Your task to perform on an android device: Search for pizza restaurants on Maps Image 0: 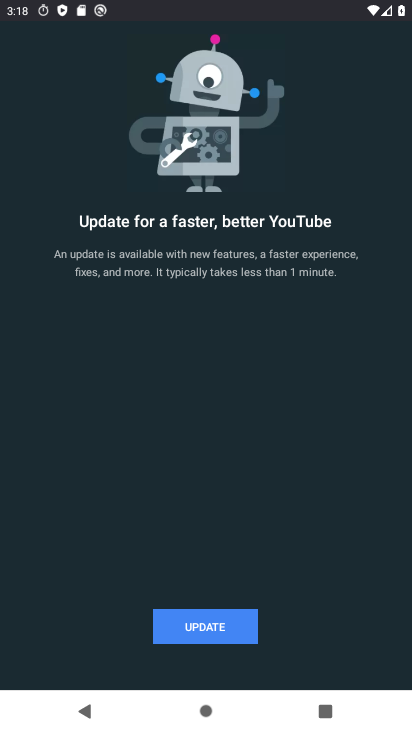
Step 0: press home button
Your task to perform on an android device: Search for pizza restaurants on Maps Image 1: 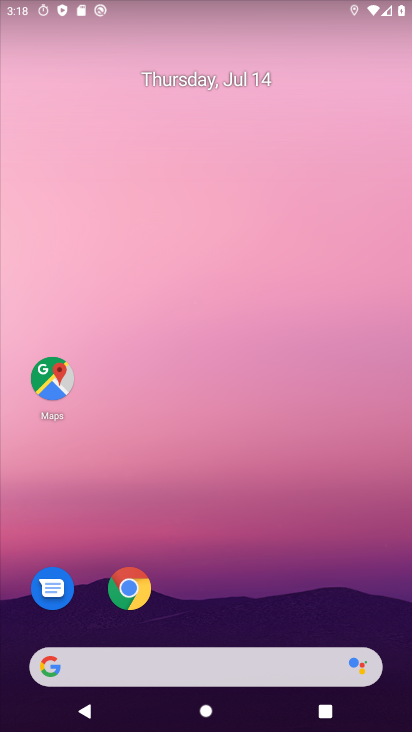
Step 1: click (53, 379)
Your task to perform on an android device: Search for pizza restaurants on Maps Image 2: 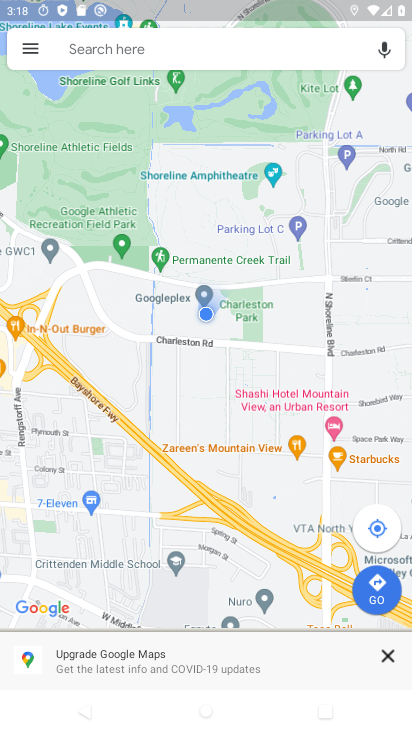
Step 2: click (181, 52)
Your task to perform on an android device: Search for pizza restaurants on Maps Image 3: 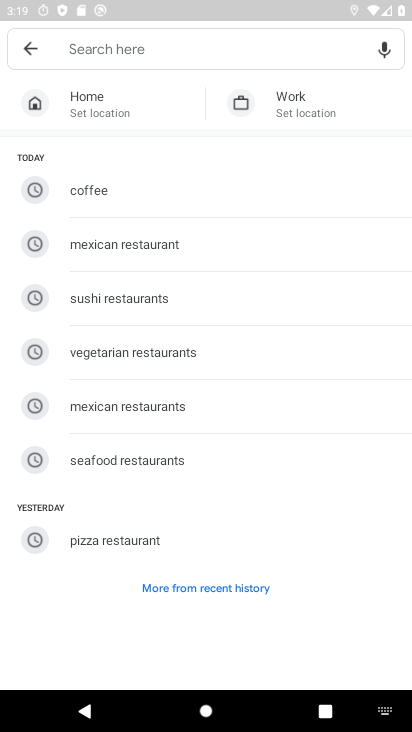
Step 3: type "pizza restaurants"
Your task to perform on an android device: Search for pizza restaurants on Maps Image 4: 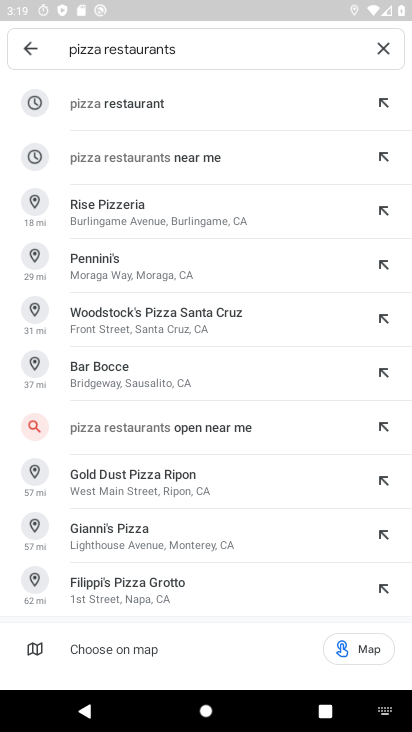
Step 4: click (142, 96)
Your task to perform on an android device: Search for pizza restaurants on Maps Image 5: 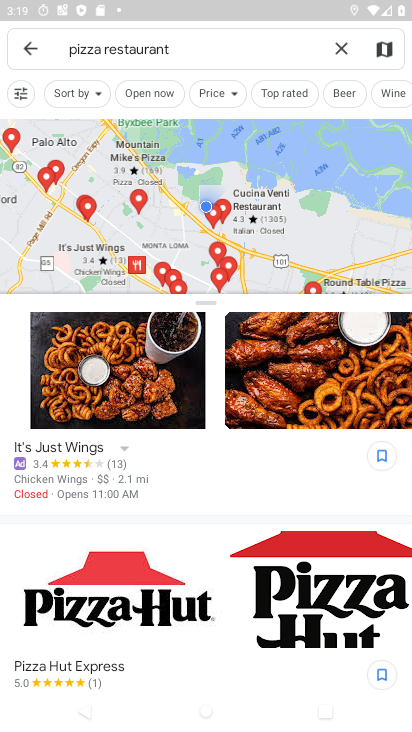
Step 5: task complete